Your task to perform on an android device: turn on the 12-hour format for clock Image 0: 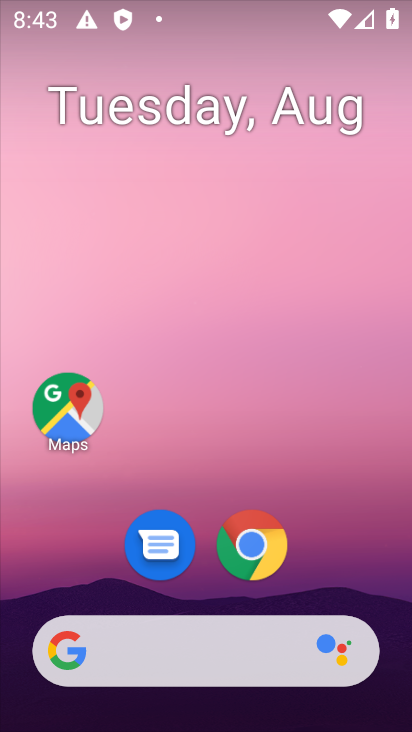
Step 0: drag from (10, 557) to (204, 155)
Your task to perform on an android device: turn on the 12-hour format for clock Image 1: 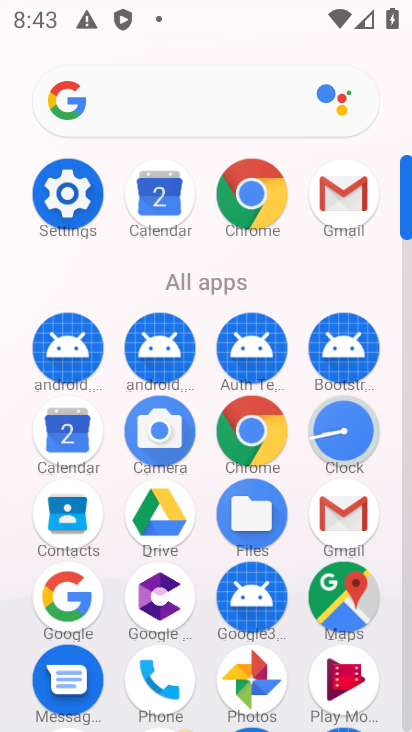
Step 1: click (344, 436)
Your task to perform on an android device: turn on the 12-hour format for clock Image 2: 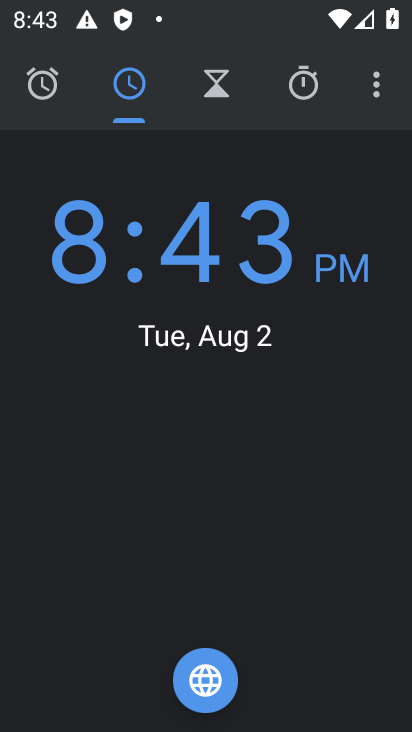
Step 2: click (377, 86)
Your task to perform on an android device: turn on the 12-hour format for clock Image 3: 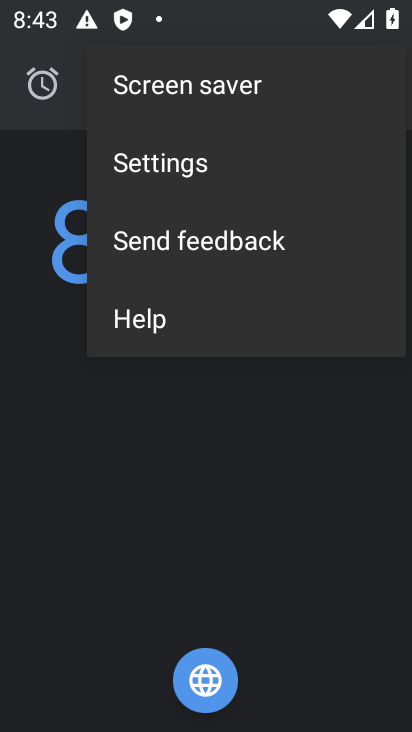
Step 3: click (167, 166)
Your task to perform on an android device: turn on the 12-hour format for clock Image 4: 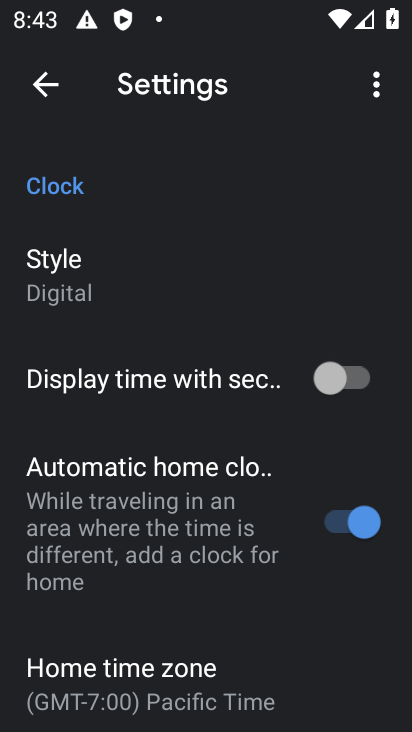
Step 4: drag from (3, 722) to (169, 214)
Your task to perform on an android device: turn on the 12-hour format for clock Image 5: 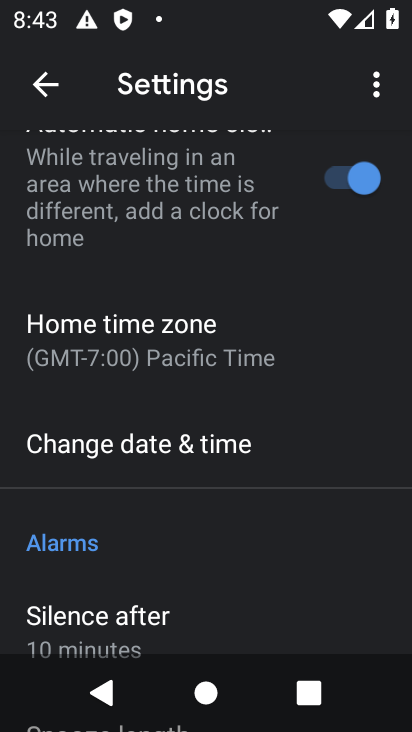
Step 5: click (136, 439)
Your task to perform on an android device: turn on the 12-hour format for clock Image 6: 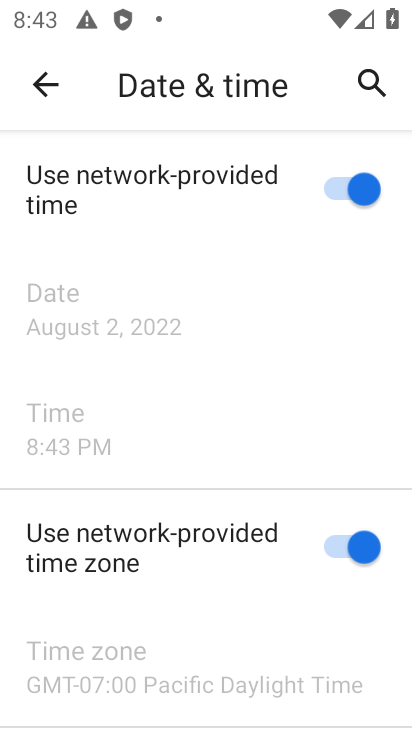
Step 6: task complete